Your task to perform on an android device: What's the weather today? Image 0: 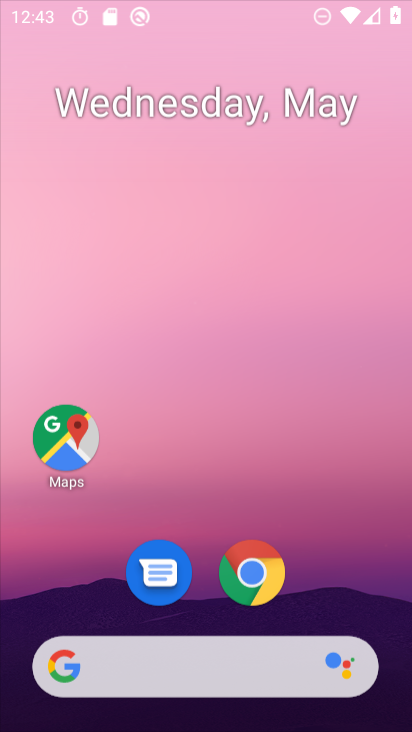
Step 0: drag from (305, 512) to (232, 15)
Your task to perform on an android device: What's the weather today? Image 1: 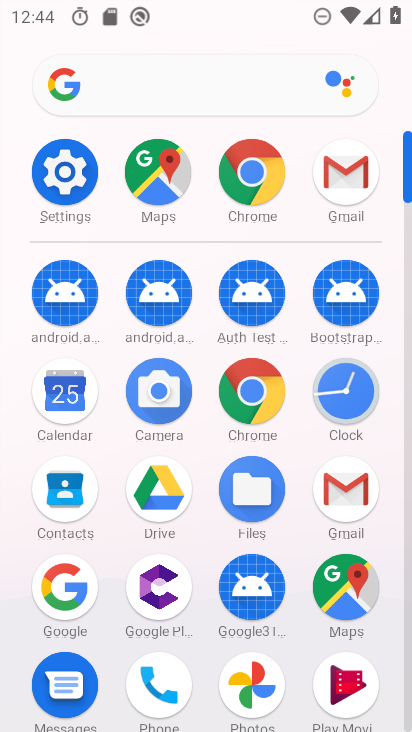
Step 1: click (249, 387)
Your task to perform on an android device: What's the weather today? Image 2: 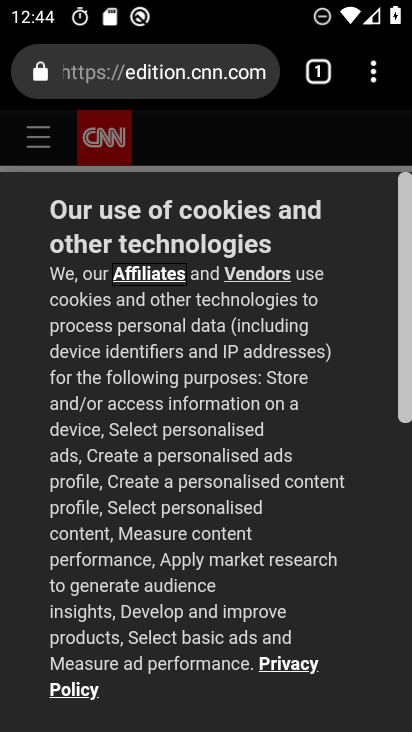
Step 2: click (207, 66)
Your task to perform on an android device: What's the weather today? Image 3: 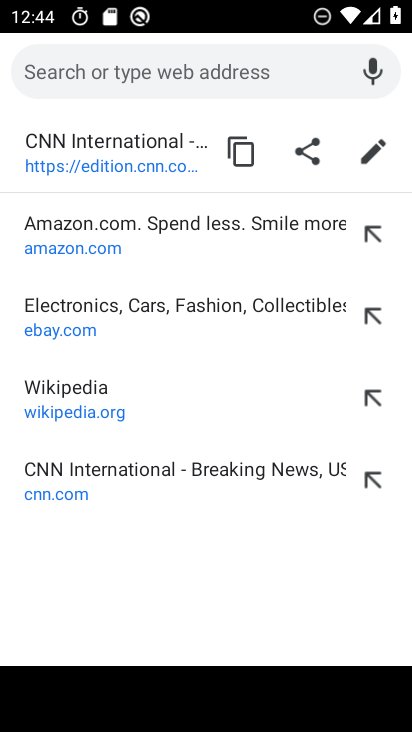
Step 3: type "What's the weather today?"
Your task to perform on an android device: What's the weather today? Image 4: 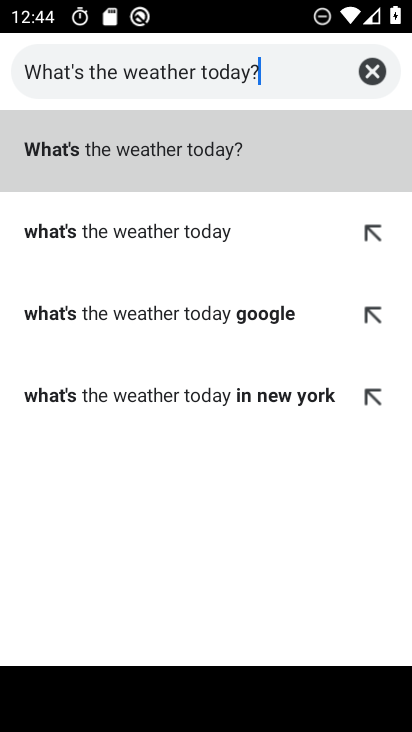
Step 4: type ""
Your task to perform on an android device: What's the weather today? Image 5: 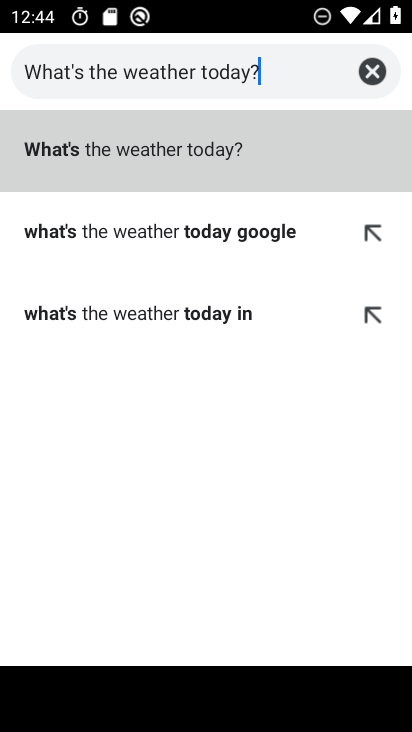
Step 5: click (147, 166)
Your task to perform on an android device: What's the weather today? Image 6: 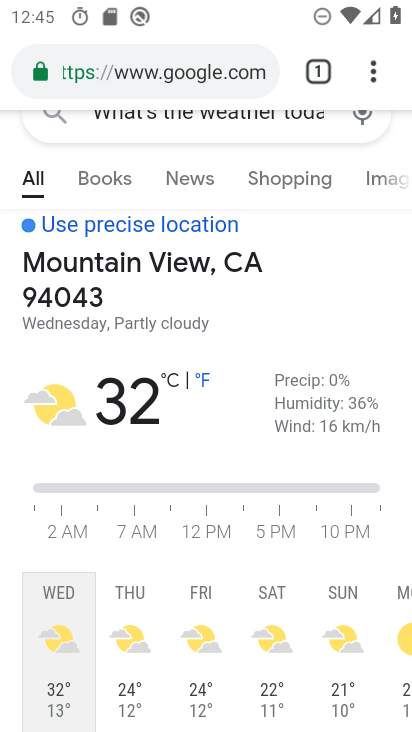
Step 6: task complete